Your task to perform on an android device: turn off smart reply in the gmail app Image 0: 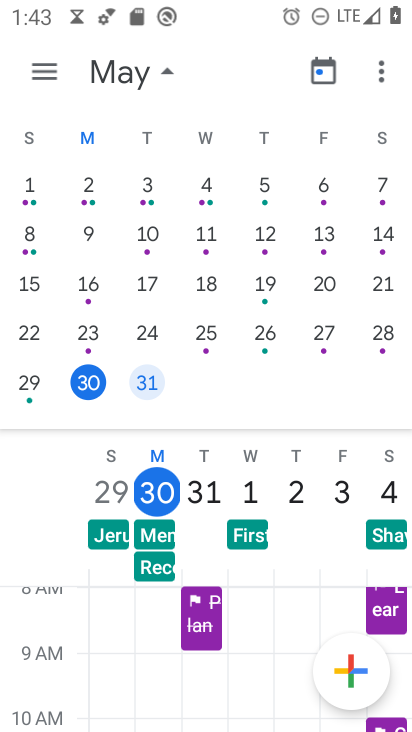
Step 0: press home button
Your task to perform on an android device: turn off smart reply in the gmail app Image 1: 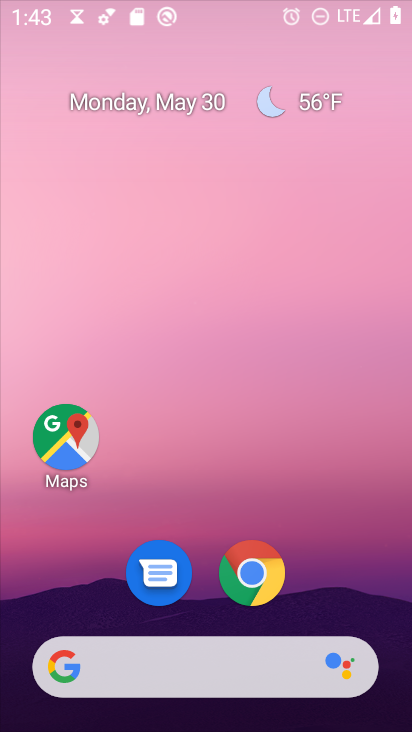
Step 1: drag from (315, 671) to (331, 152)
Your task to perform on an android device: turn off smart reply in the gmail app Image 2: 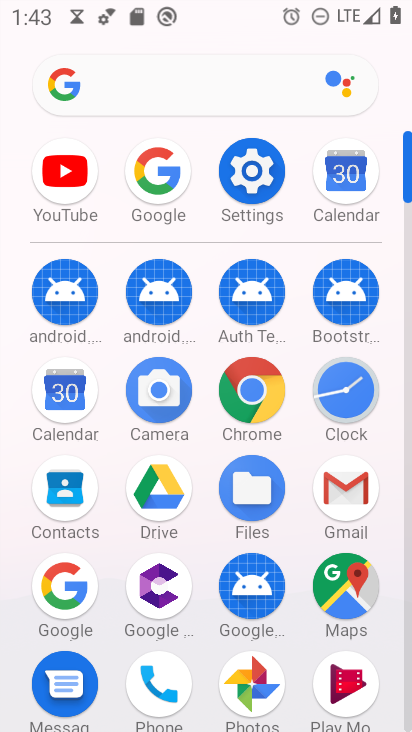
Step 2: click (329, 486)
Your task to perform on an android device: turn off smart reply in the gmail app Image 3: 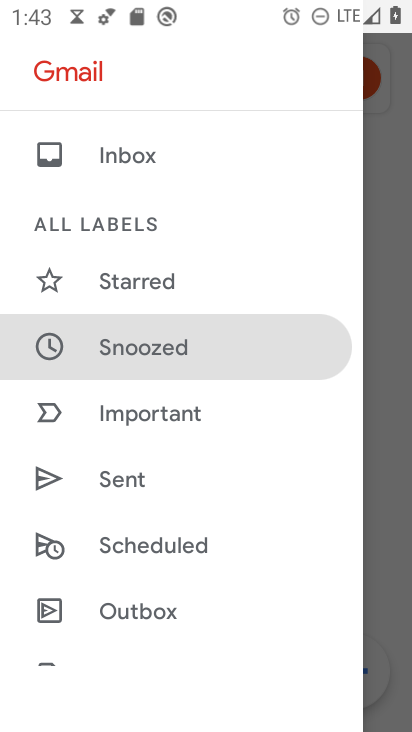
Step 3: drag from (174, 645) to (200, 24)
Your task to perform on an android device: turn off smart reply in the gmail app Image 4: 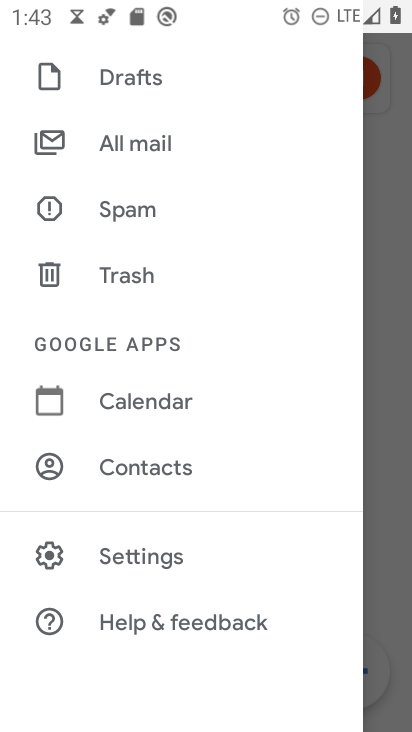
Step 4: click (160, 553)
Your task to perform on an android device: turn off smart reply in the gmail app Image 5: 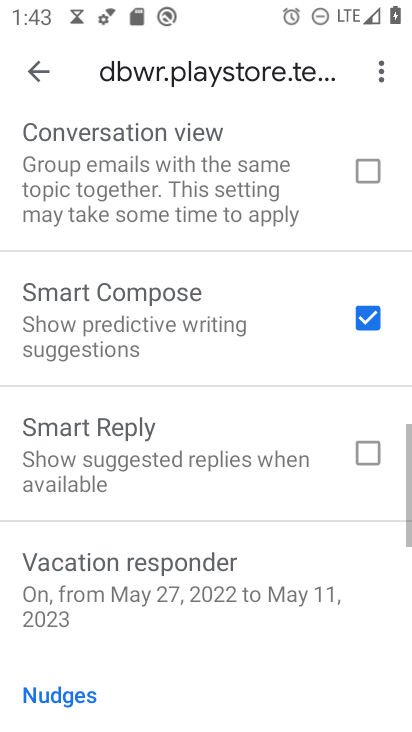
Step 5: task complete